Your task to perform on an android device: turn pop-ups on in chrome Image 0: 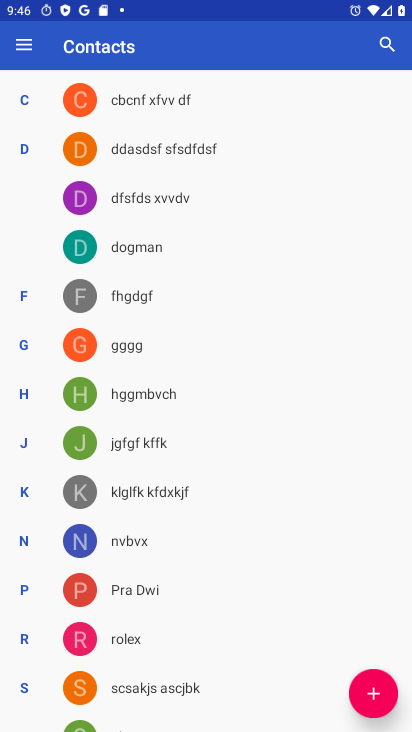
Step 0: press home button
Your task to perform on an android device: turn pop-ups on in chrome Image 1: 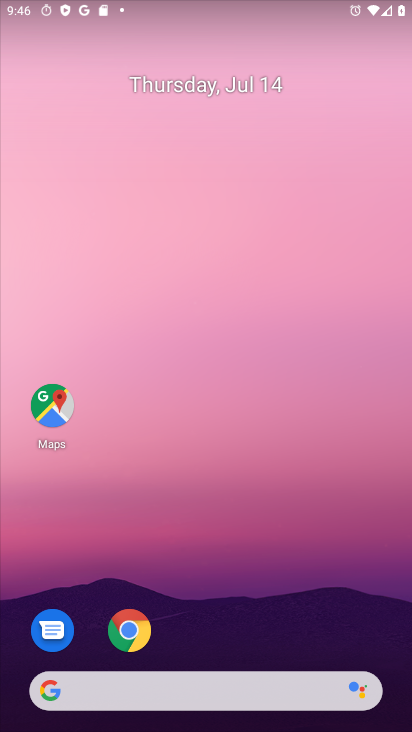
Step 1: click (122, 631)
Your task to perform on an android device: turn pop-ups on in chrome Image 2: 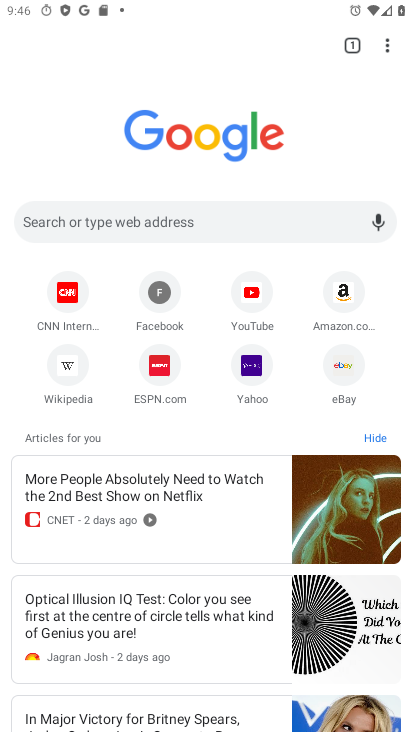
Step 2: click (386, 38)
Your task to perform on an android device: turn pop-ups on in chrome Image 3: 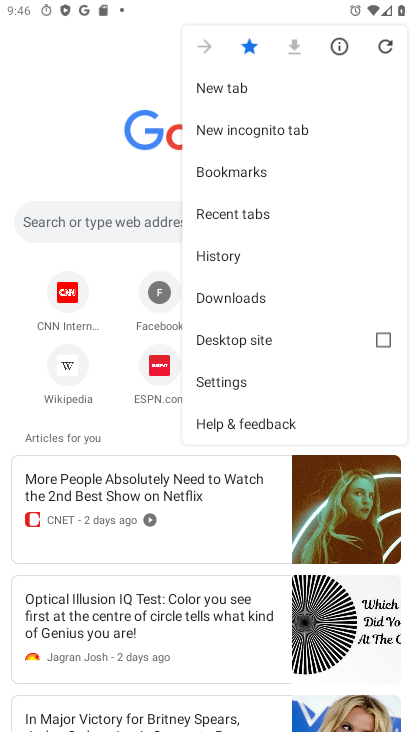
Step 3: click (254, 376)
Your task to perform on an android device: turn pop-ups on in chrome Image 4: 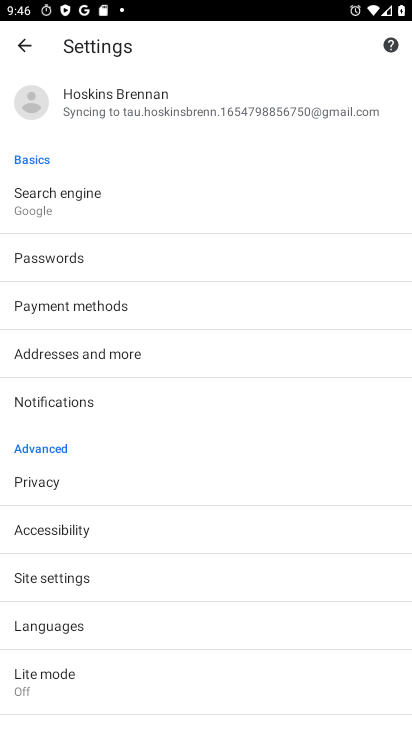
Step 4: click (80, 576)
Your task to perform on an android device: turn pop-ups on in chrome Image 5: 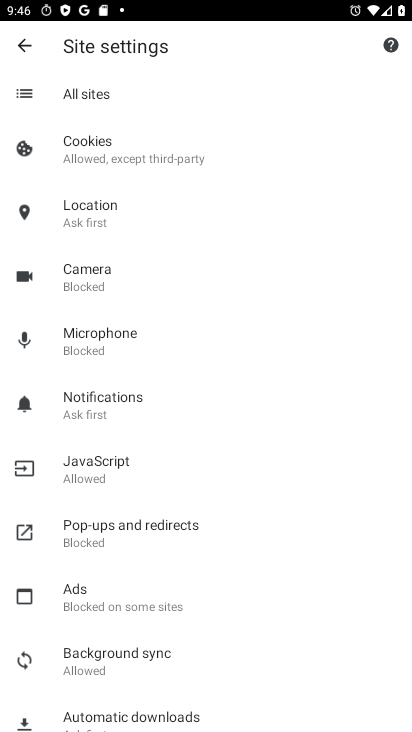
Step 5: click (106, 534)
Your task to perform on an android device: turn pop-ups on in chrome Image 6: 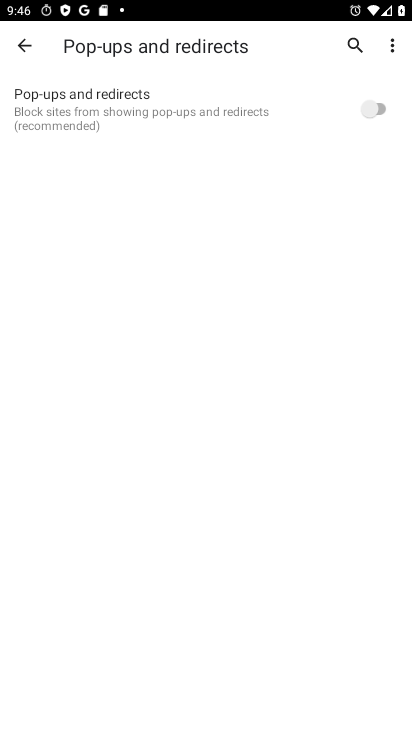
Step 6: click (364, 106)
Your task to perform on an android device: turn pop-ups on in chrome Image 7: 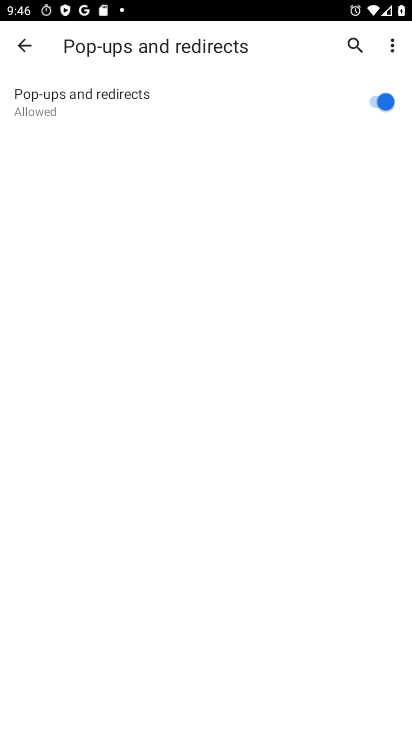
Step 7: task complete